Your task to perform on an android device: allow notifications from all sites in the chrome app Image 0: 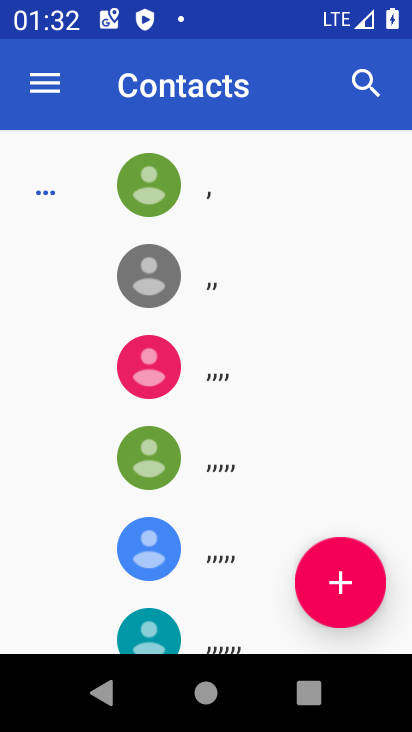
Step 0: press home button
Your task to perform on an android device: allow notifications from all sites in the chrome app Image 1: 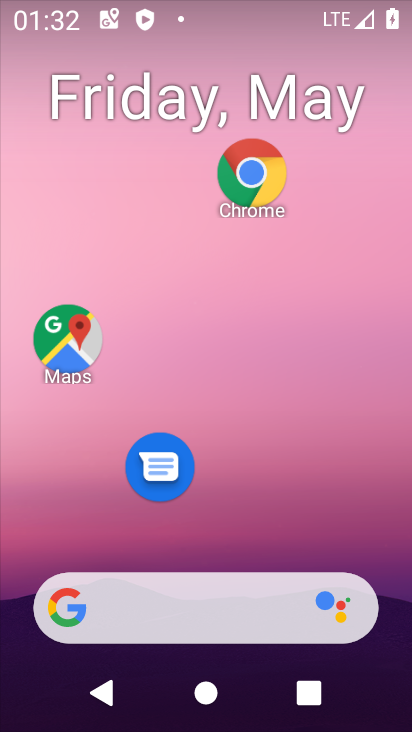
Step 1: drag from (267, 619) to (329, 160)
Your task to perform on an android device: allow notifications from all sites in the chrome app Image 2: 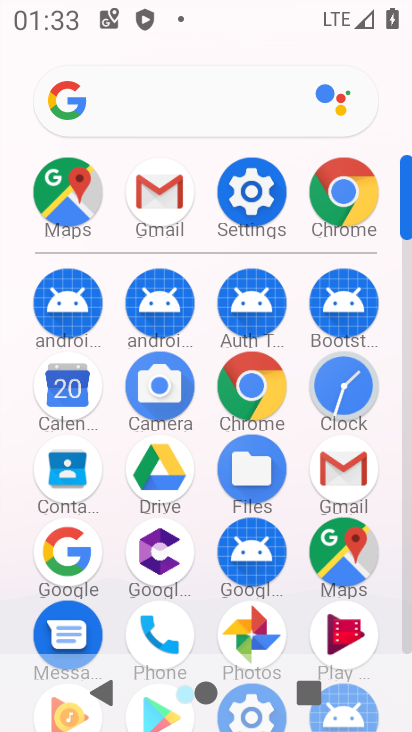
Step 2: click (331, 212)
Your task to perform on an android device: allow notifications from all sites in the chrome app Image 3: 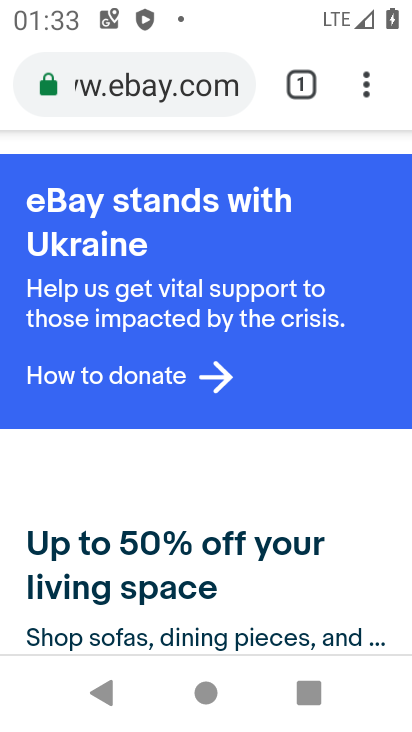
Step 3: click (358, 93)
Your task to perform on an android device: allow notifications from all sites in the chrome app Image 4: 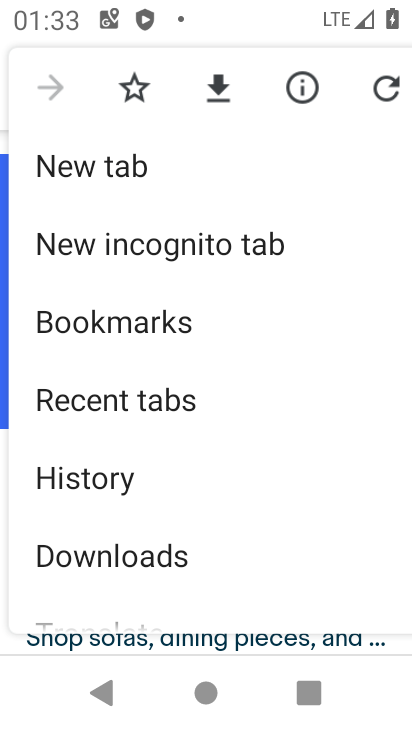
Step 4: drag from (136, 566) to (211, 285)
Your task to perform on an android device: allow notifications from all sites in the chrome app Image 5: 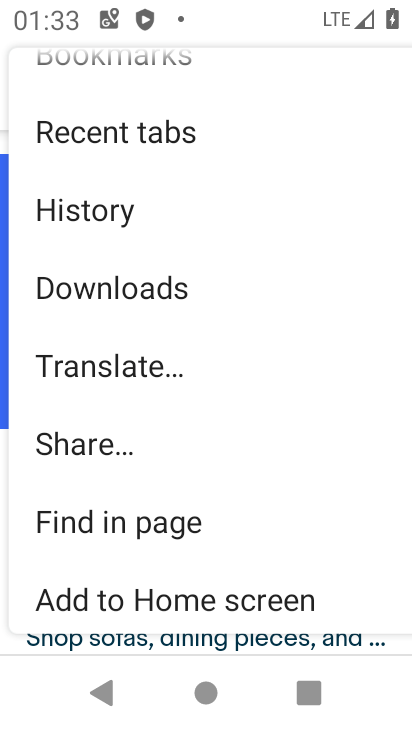
Step 5: drag from (192, 555) to (231, 274)
Your task to perform on an android device: allow notifications from all sites in the chrome app Image 6: 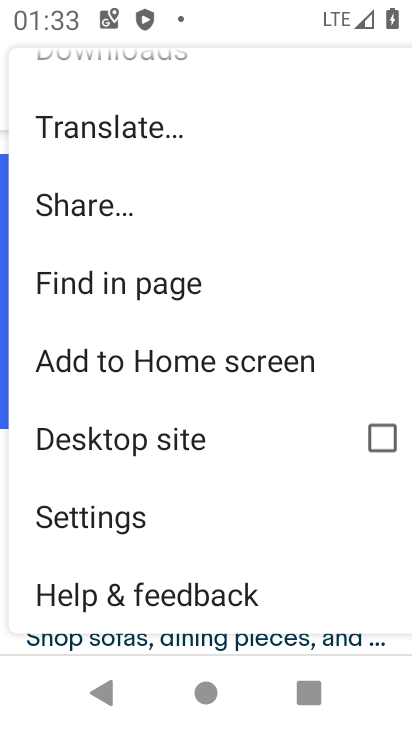
Step 6: click (152, 534)
Your task to perform on an android device: allow notifications from all sites in the chrome app Image 7: 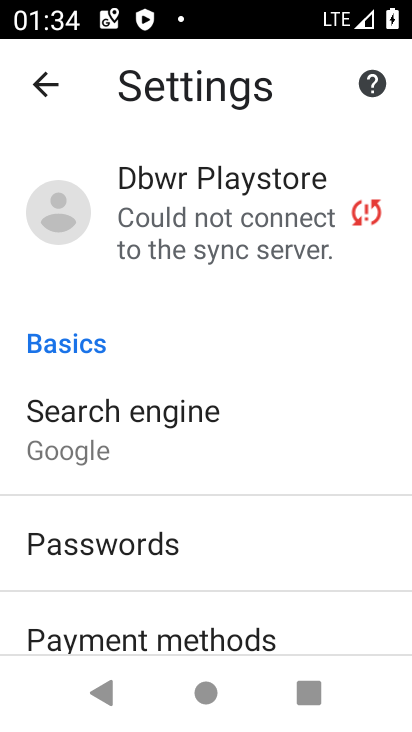
Step 7: drag from (150, 585) to (184, 401)
Your task to perform on an android device: allow notifications from all sites in the chrome app Image 8: 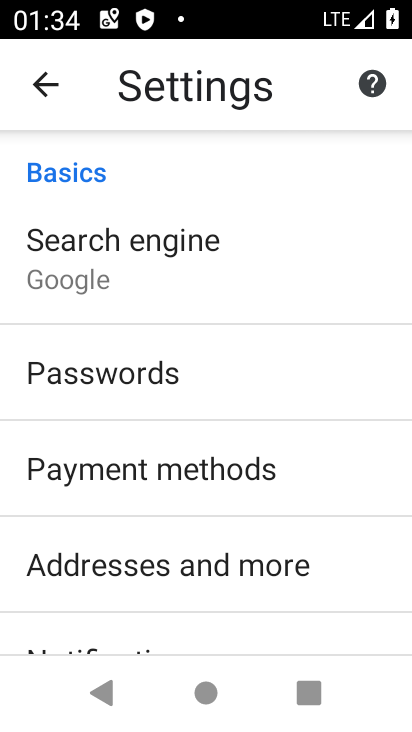
Step 8: drag from (195, 528) to (208, 394)
Your task to perform on an android device: allow notifications from all sites in the chrome app Image 9: 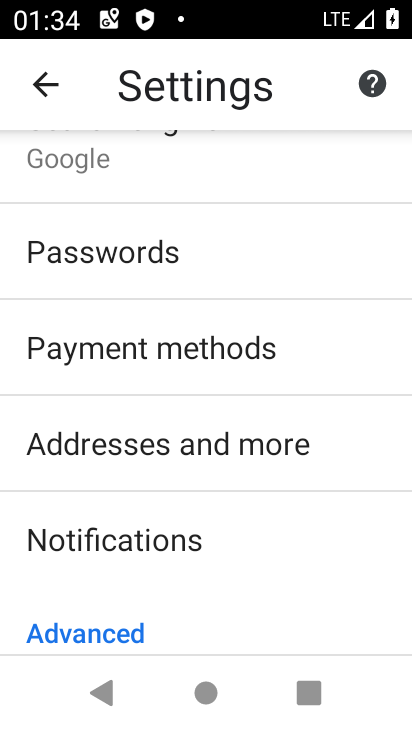
Step 9: drag from (188, 533) to (229, 327)
Your task to perform on an android device: allow notifications from all sites in the chrome app Image 10: 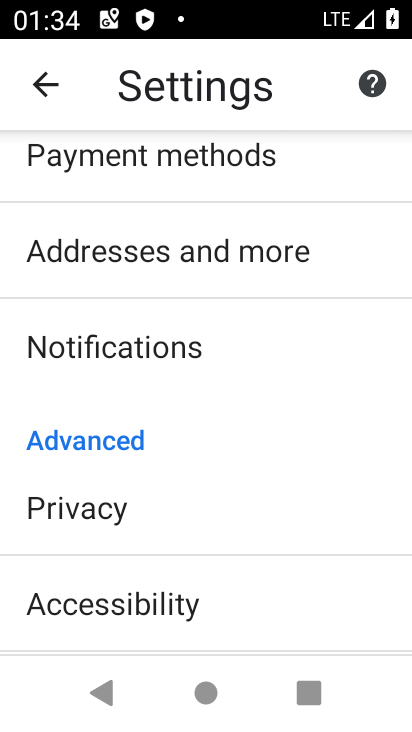
Step 10: drag from (174, 587) to (190, 428)
Your task to perform on an android device: allow notifications from all sites in the chrome app Image 11: 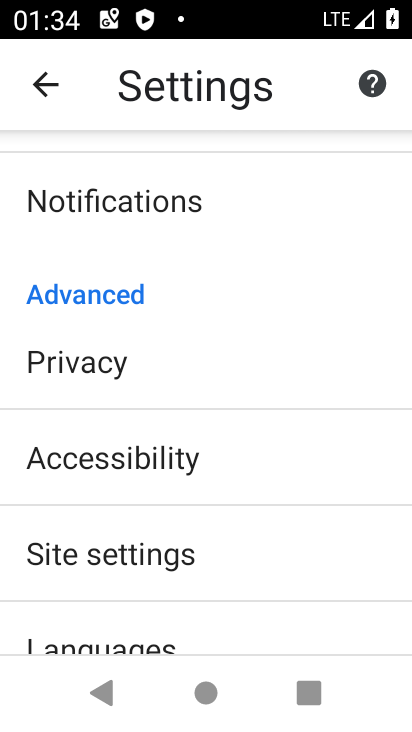
Step 11: click (129, 553)
Your task to perform on an android device: allow notifications from all sites in the chrome app Image 12: 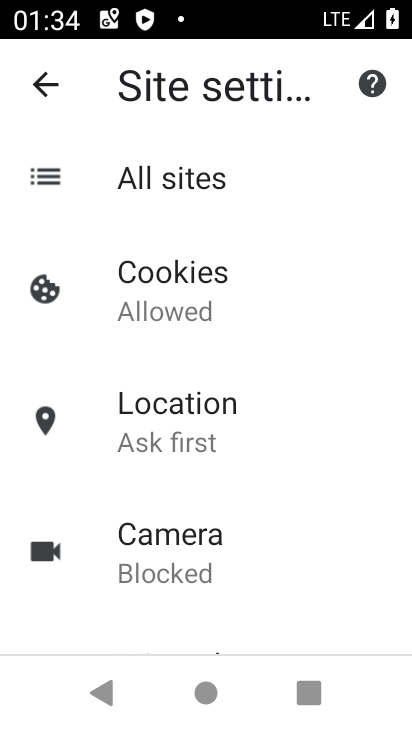
Step 12: drag from (183, 599) to (200, 444)
Your task to perform on an android device: allow notifications from all sites in the chrome app Image 13: 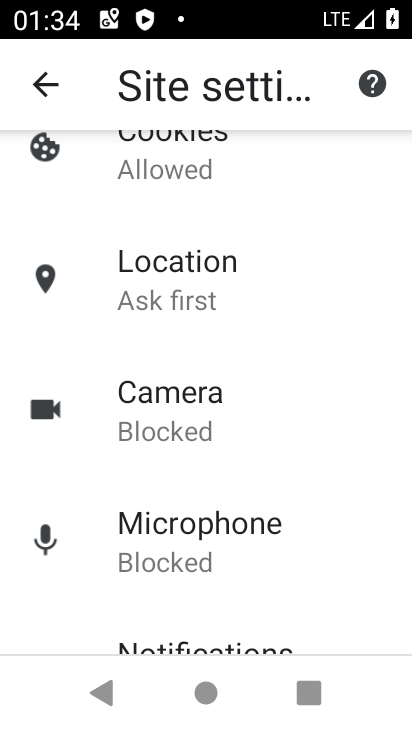
Step 13: click (191, 636)
Your task to perform on an android device: allow notifications from all sites in the chrome app Image 14: 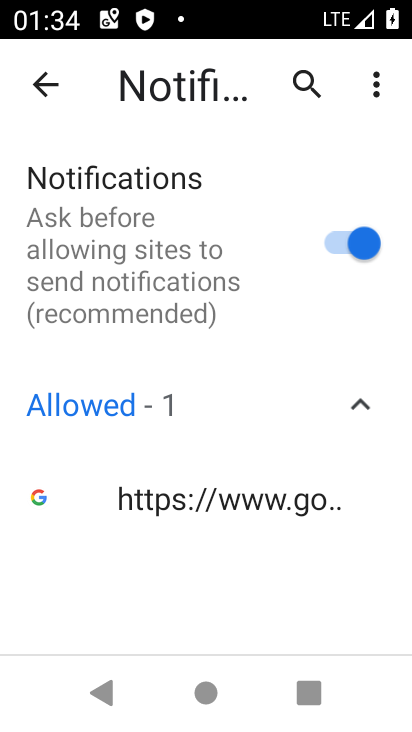
Step 14: click (327, 287)
Your task to perform on an android device: allow notifications from all sites in the chrome app Image 15: 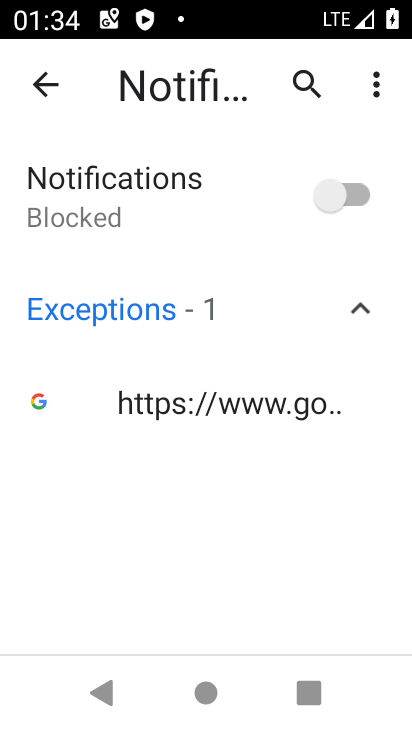
Step 15: click (348, 229)
Your task to perform on an android device: allow notifications from all sites in the chrome app Image 16: 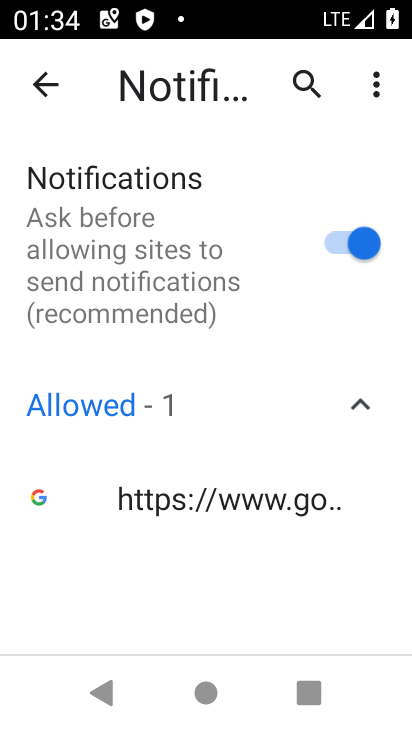
Step 16: task complete